Your task to perform on an android device: open app "McDonald's" Image 0: 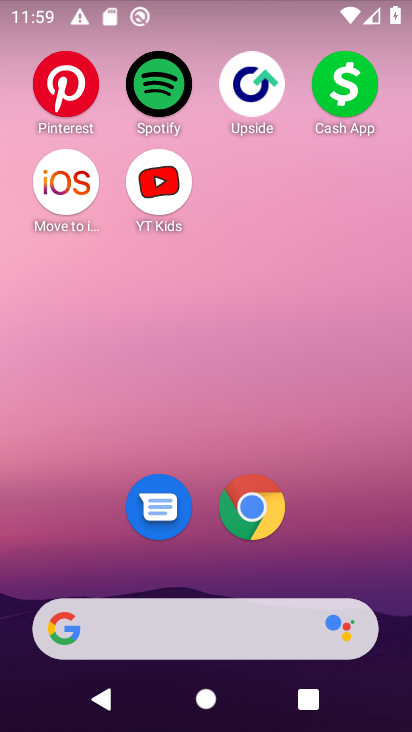
Step 0: drag from (214, 586) to (265, 117)
Your task to perform on an android device: open app "McDonald's" Image 1: 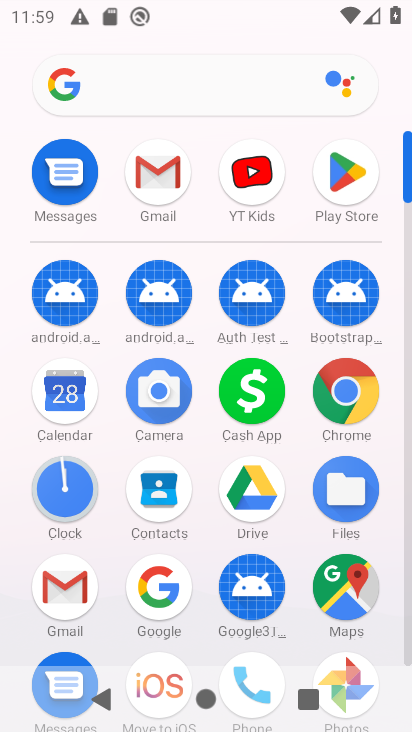
Step 1: click (355, 189)
Your task to perform on an android device: open app "McDonald's" Image 2: 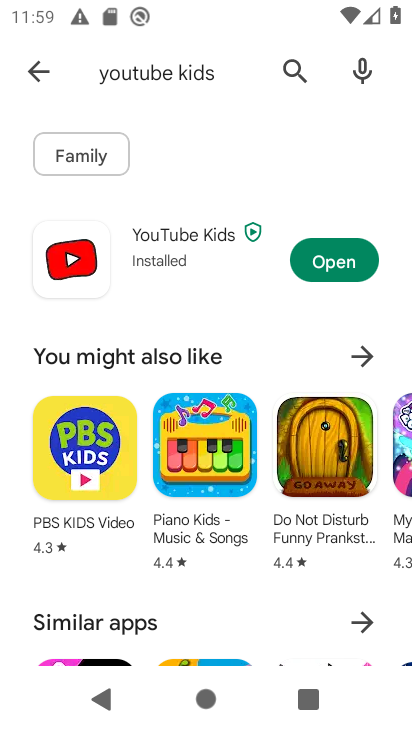
Step 2: click (183, 72)
Your task to perform on an android device: open app "McDonald's" Image 3: 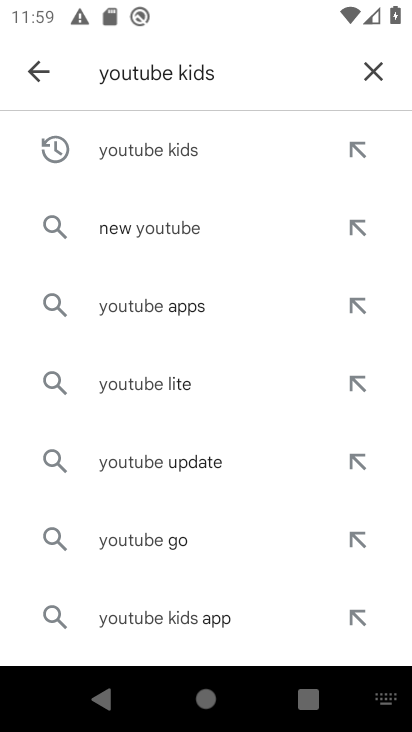
Step 3: click (364, 65)
Your task to perform on an android device: open app "McDonald's" Image 4: 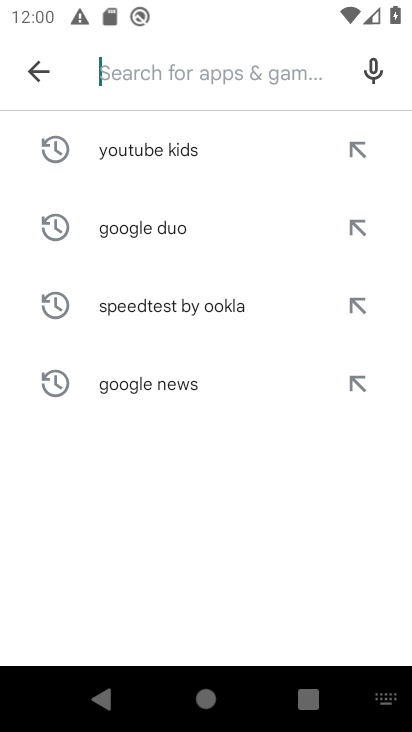
Step 4: type "mcdonalds"
Your task to perform on an android device: open app "McDonald's" Image 5: 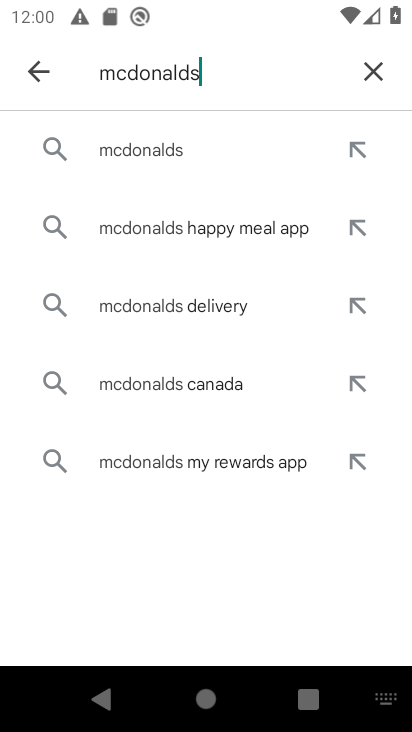
Step 5: click (160, 169)
Your task to perform on an android device: open app "McDonald's" Image 6: 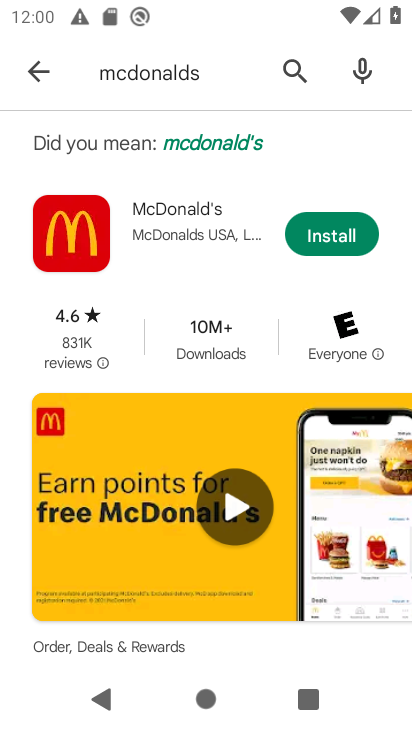
Step 6: task complete